Your task to perform on an android device: toggle translation in the chrome app Image 0: 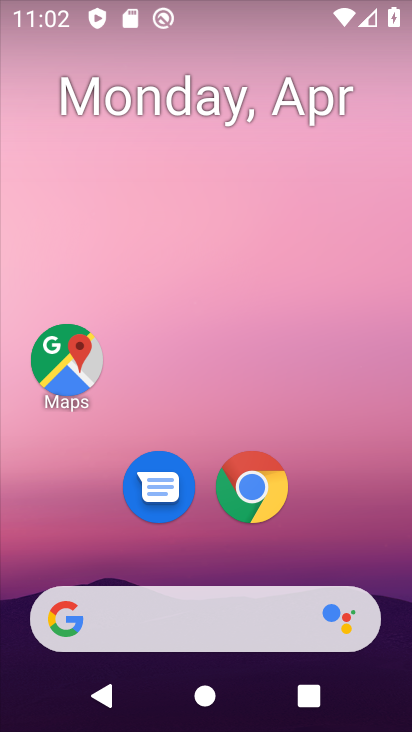
Step 0: click (256, 487)
Your task to perform on an android device: toggle translation in the chrome app Image 1: 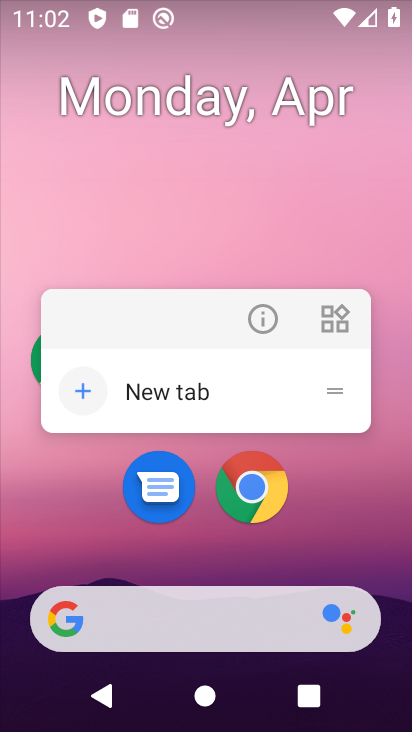
Step 1: drag from (390, 523) to (364, 243)
Your task to perform on an android device: toggle translation in the chrome app Image 2: 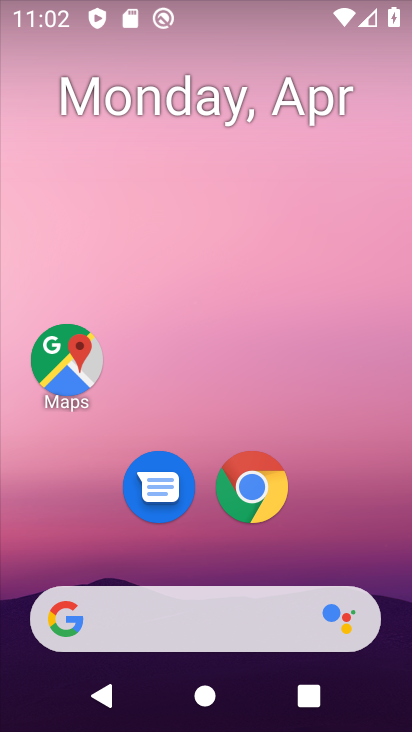
Step 2: drag from (377, 554) to (289, 105)
Your task to perform on an android device: toggle translation in the chrome app Image 3: 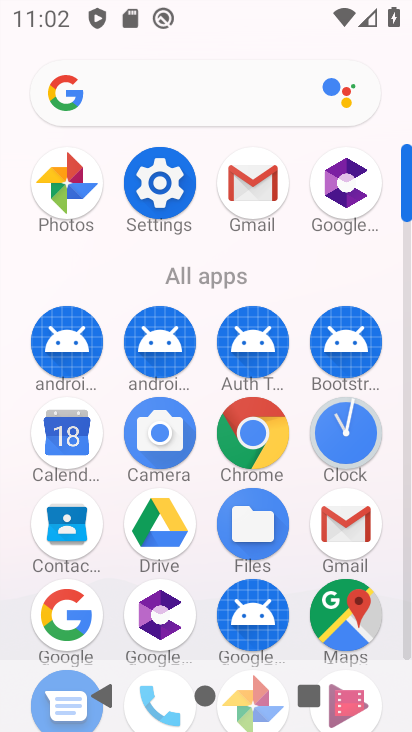
Step 3: click (256, 433)
Your task to perform on an android device: toggle translation in the chrome app Image 4: 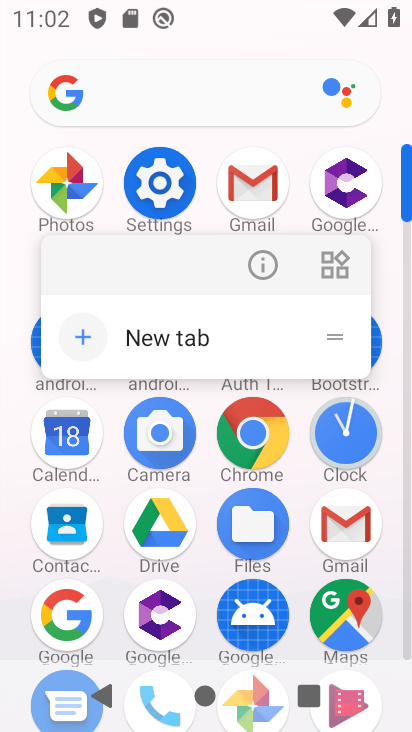
Step 4: click (257, 443)
Your task to perform on an android device: toggle translation in the chrome app Image 5: 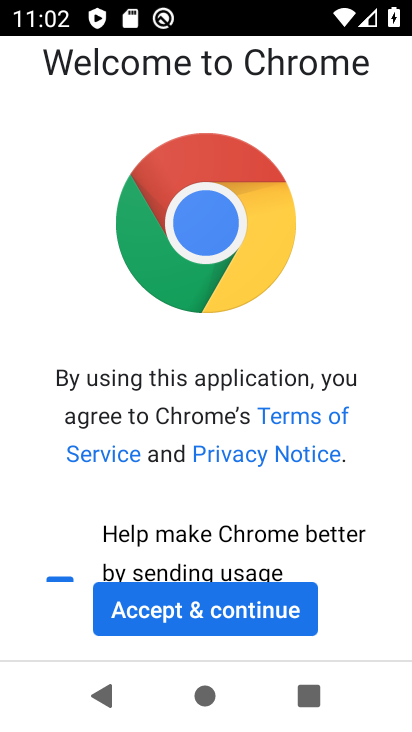
Step 5: click (268, 616)
Your task to perform on an android device: toggle translation in the chrome app Image 6: 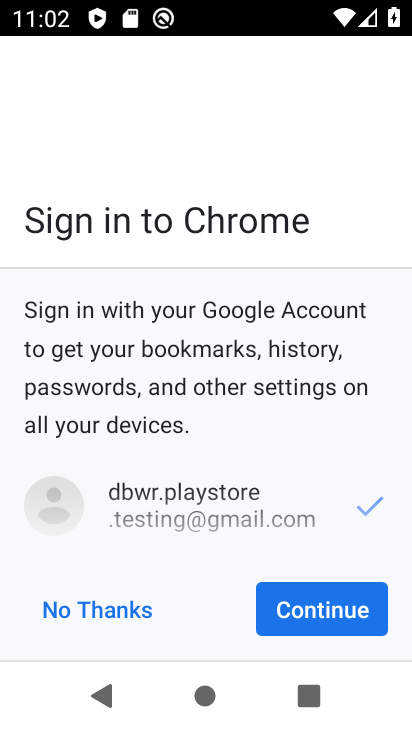
Step 6: click (268, 616)
Your task to perform on an android device: toggle translation in the chrome app Image 7: 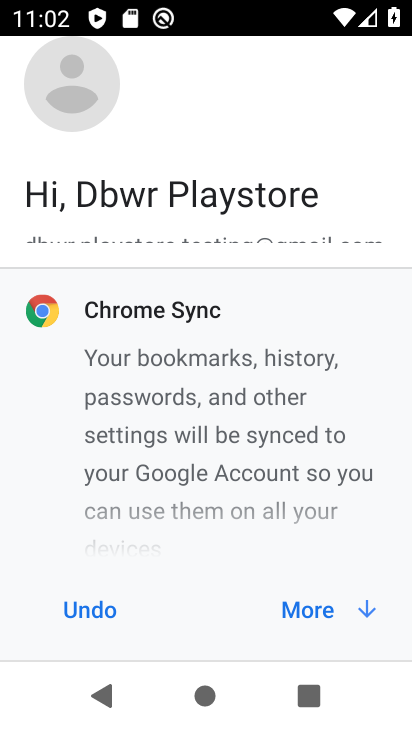
Step 7: click (332, 608)
Your task to perform on an android device: toggle translation in the chrome app Image 8: 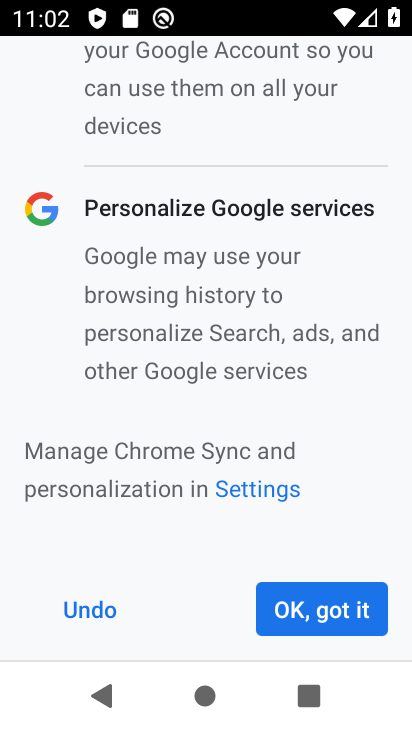
Step 8: click (332, 608)
Your task to perform on an android device: toggle translation in the chrome app Image 9: 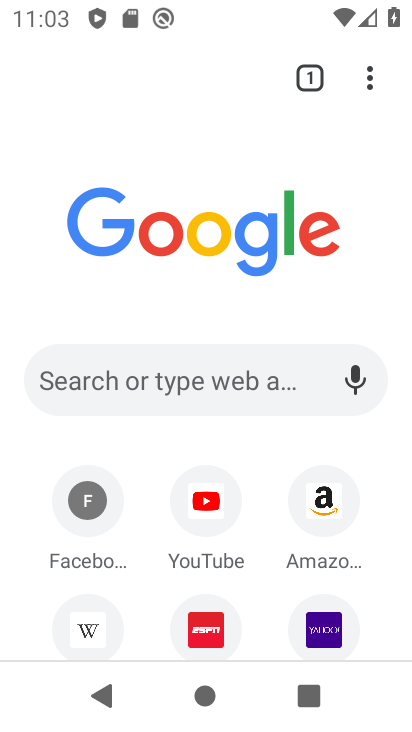
Step 9: drag from (370, 82) to (240, 560)
Your task to perform on an android device: toggle translation in the chrome app Image 10: 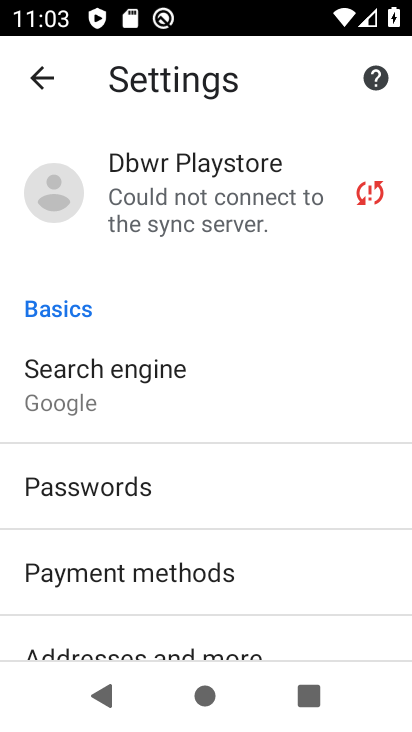
Step 10: drag from (312, 631) to (264, 129)
Your task to perform on an android device: toggle translation in the chrome app Image 11: 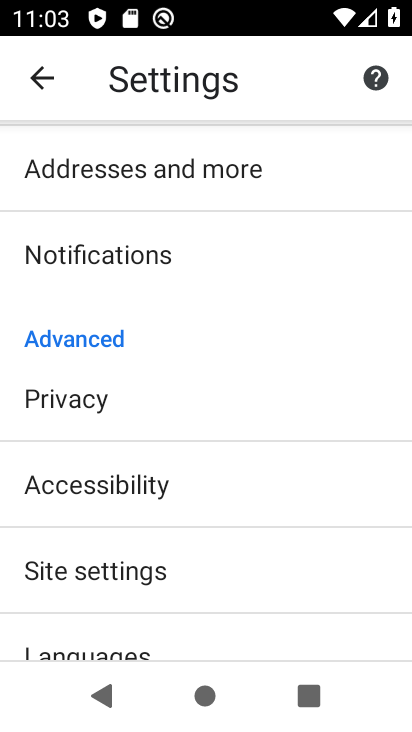
Step 11: click (310, 637)
Your task to perform on an android device: toggle translation in the chrome app Image 12: 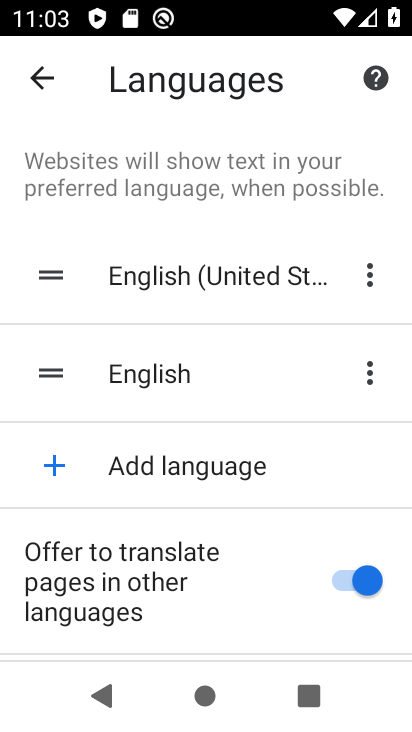
Step 12: click (338, 571)
Your task to perform on an android device: toggle translation in the chrome app Image 13: 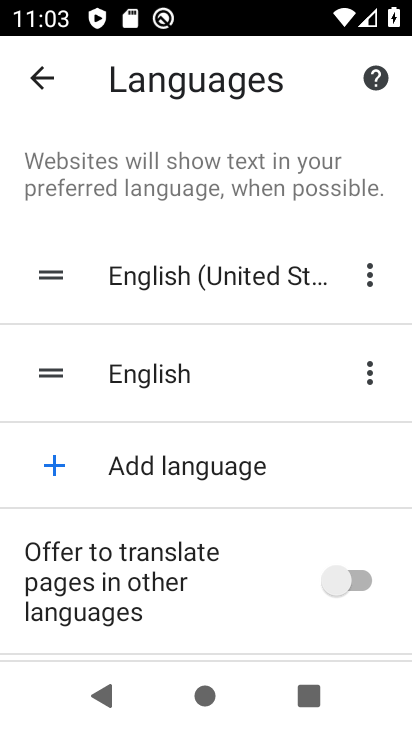
Step 13: task complete